Your task to perform on an android device: Go to battery settings Image 0: 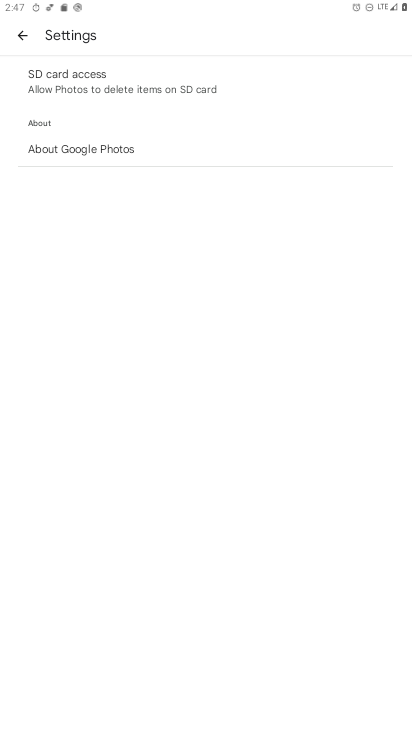
Step 0: press home button
Your task to perform on an android device: Go to battery settings Image 1: 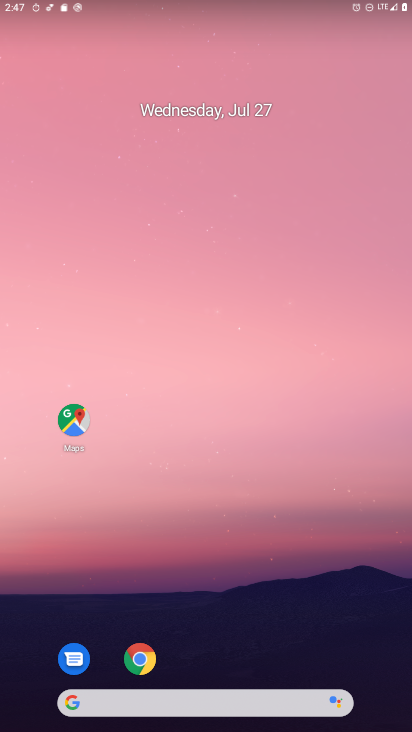
Step 1: drag from (282, 307) to (274, 48)
Your task to perform on an android device: Go to battery settings Image 2: 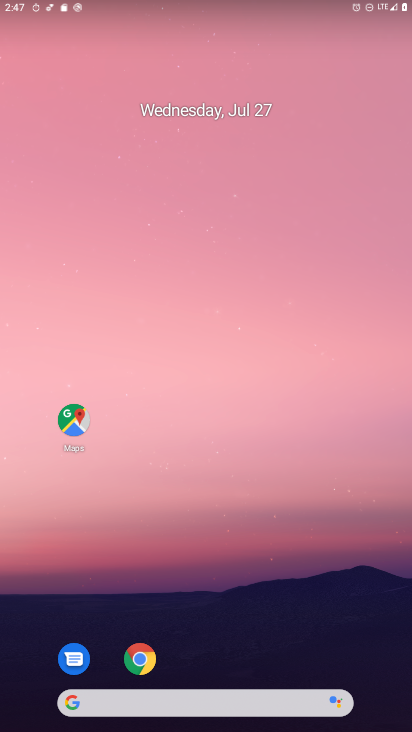
Step 2: drag from (203, 519) to (193, 8)
Your task to perform on an android device: Go to battery settings Image 3: 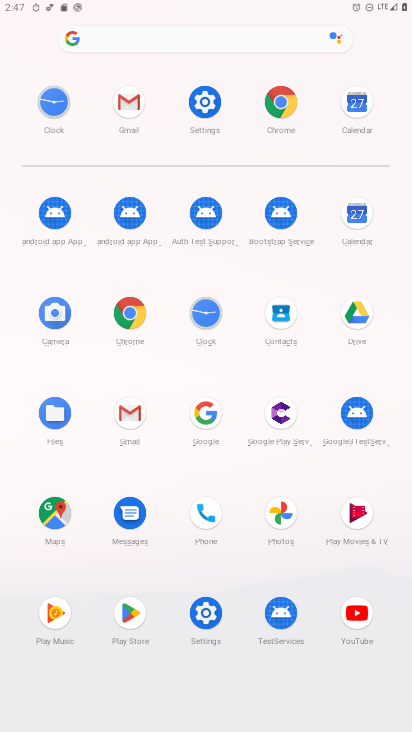
Step 3: click (205, 96)
Your task to perform on an android device: Go to battery settings Image 4: 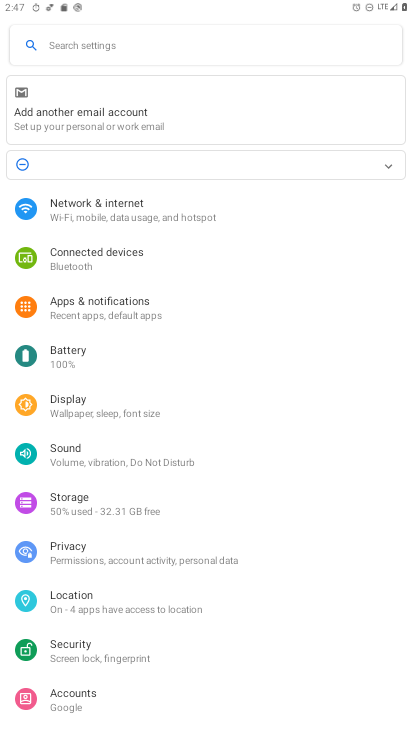
Step 4: click (70, 360)
Your task to perform on an android device: Go to battery settings Image 5: 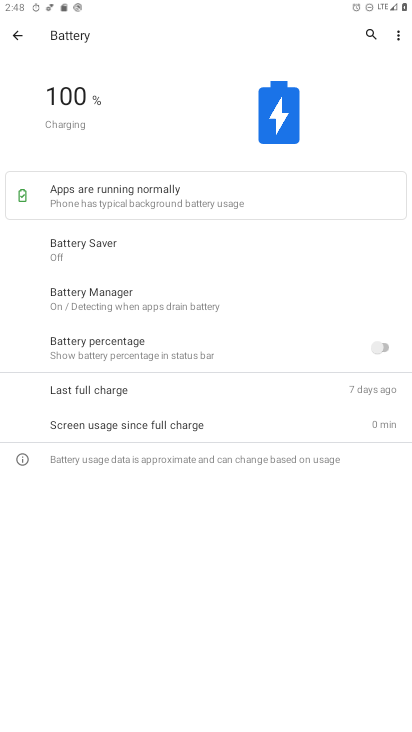
Step 5: task complete